Your task to perform on an android device: Open Google Maps and go to "Timeline" Image 0: 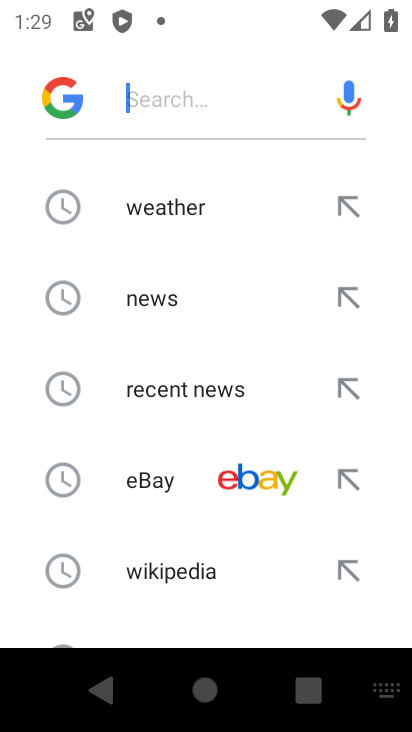
Step 0: press home button
Your task to perform on an android device: Open Google Maps and go to "Timeline" Image 1: 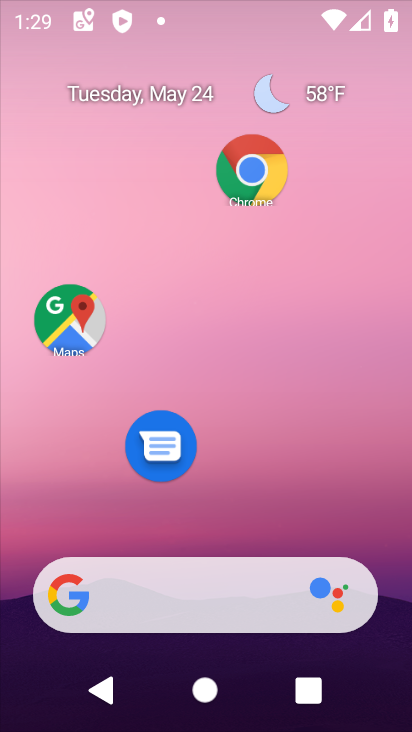
Step 1: drag from (230, 604) to (265, 172)
Your task to perform on an android device: Open Google Maps and go to "Timeline" Image 2: 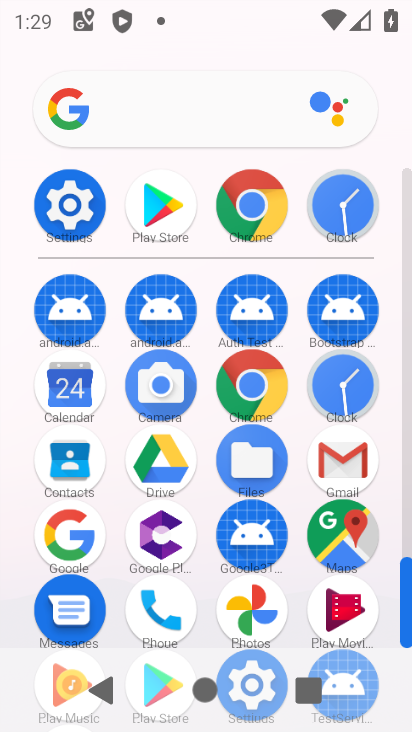
Step 2: drag from (131, 448) to (151, 238)
Your task to perform on an android device: Open Google Maps and go to "Timeline" Image 3: 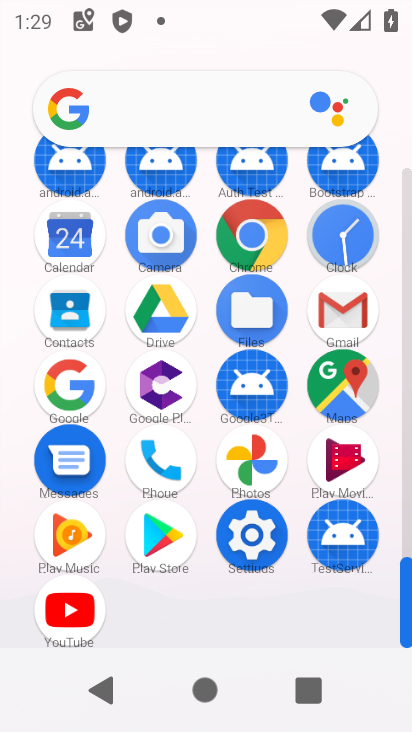
Step 3: click (357, 386)
Your task to perform on an android device: Open Google Maps and go to "Timeline" Image 4: 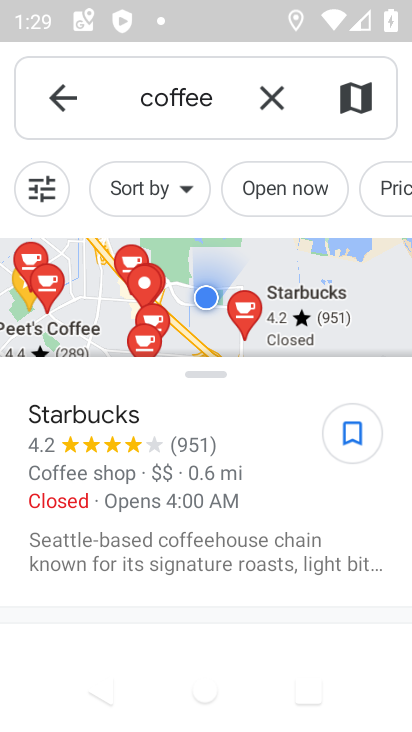
Step 4: click (71, 111)
Your task to perform on an android device: Open Google Maps and go to "Timeline" Image 5: 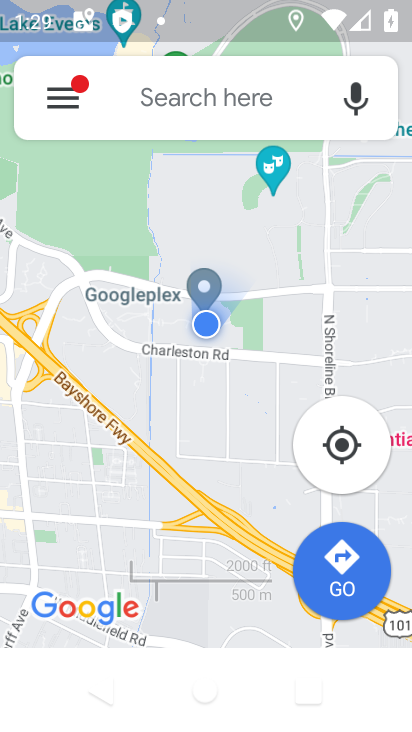
Step 5: click (70, 105)
Your task to perform on an android device: Open Google Maps and go to "Timeline" Image 6: 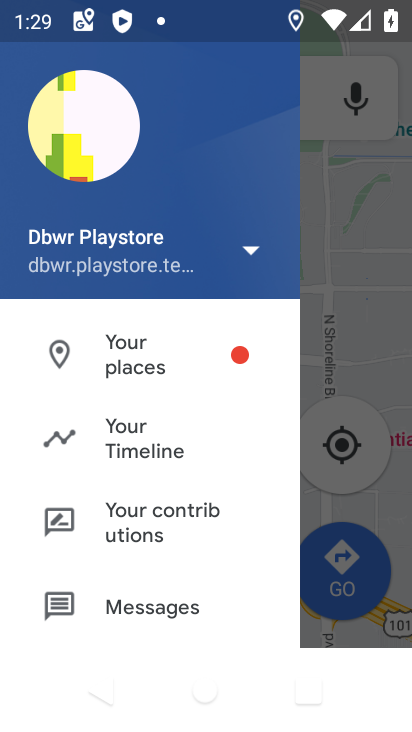
Step 6: drag from (129, 460) to (141, 311)
Your task to perform on an android device: Open Google Maps and go to "Timeline" Image 7: 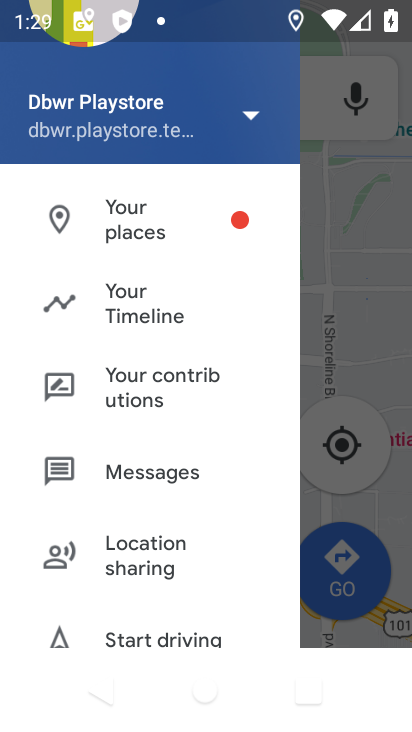
Step 7: click (133, 312)
Your task to perform on an android device: Open Google Maps and go to "Timeline" Image 8: 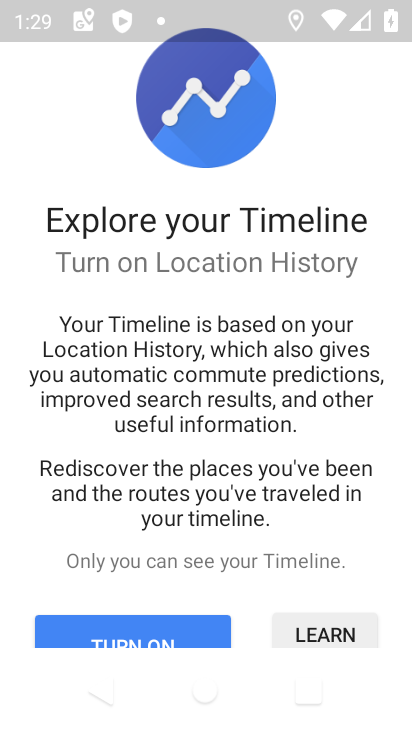
Step 8: drag from (216, 459) to (246, 203)
Your task to perform on an android device: Open Google Maps and go to "Timeline" Image 9: 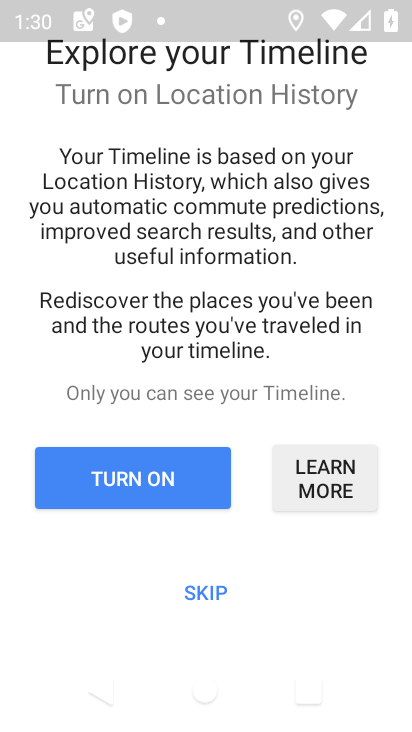
Step 9: click (214, 597)
Your task to perform on an android device: Open Google Maps and go to "Timeline" Image 10: 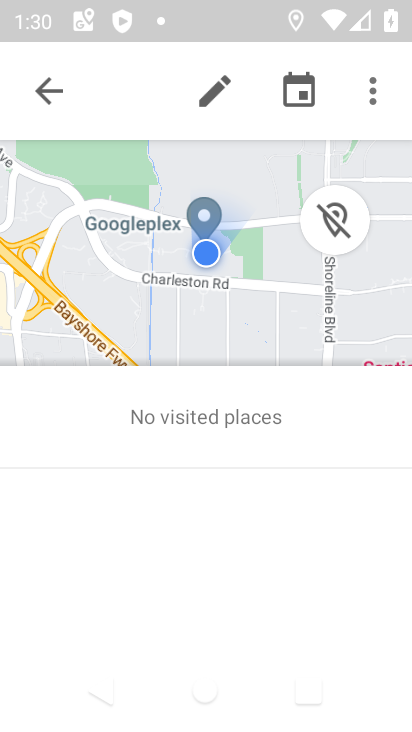
Step 10: task complete